Your task to perform on an android device: Go to notification settings Image 0: 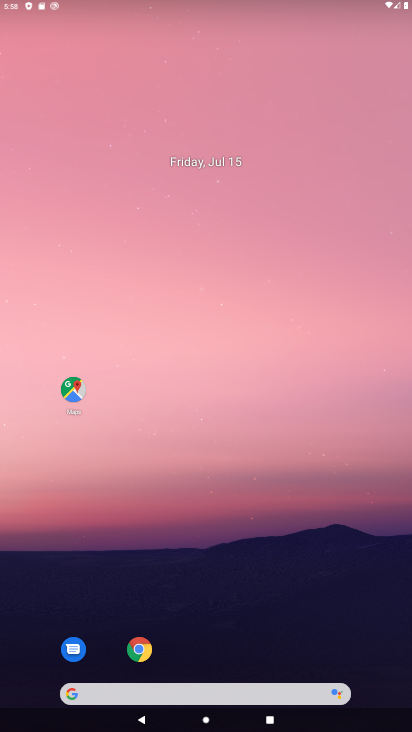
Step 0: press home button
Your task to perform on an android device: Go to notification settings Image 1: 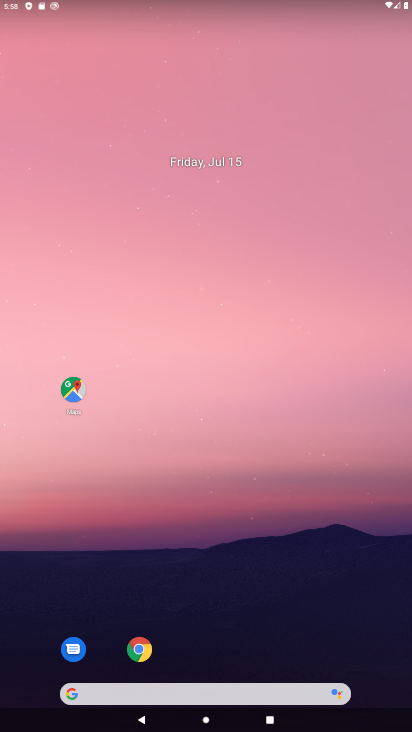
Step 1: drag from (259, 589) to (272, 11)
Your task to perform on an android device: Go to notification settings Image 2: 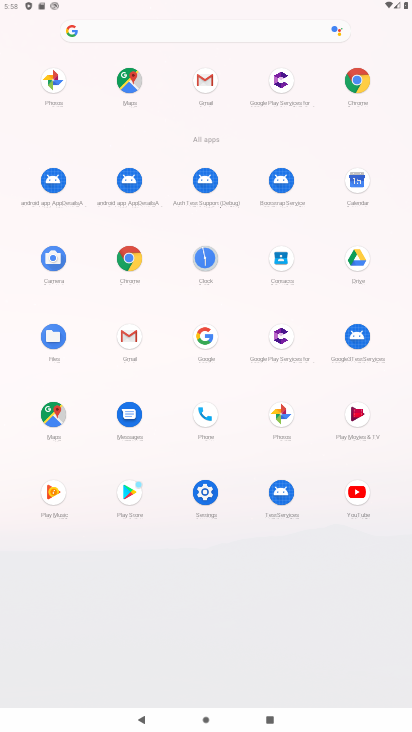
Step 2: click (207, 486)
Your task to perform on an android device: Go to notification settings Image 3: 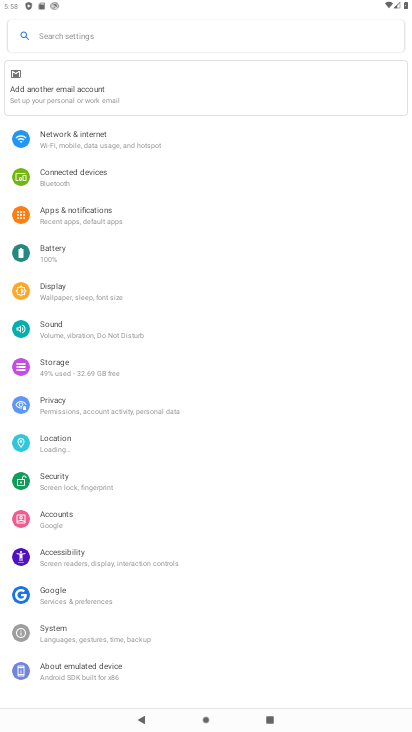
Step 3: click (63, 225)
Your task to perform on an android device: Go to notification settings Image 4: 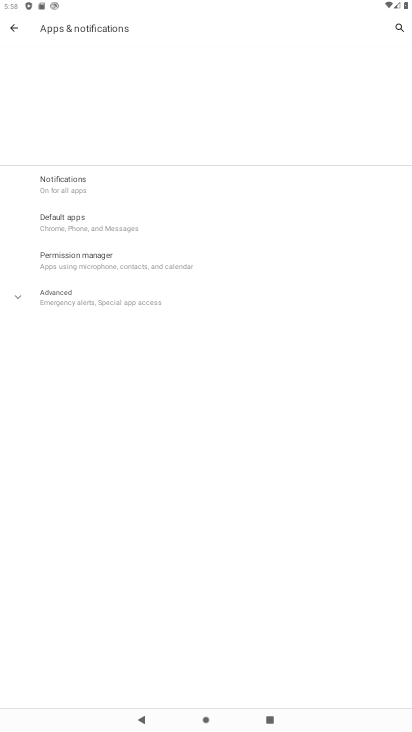
Step 4: click (66, 182)
Your task to perform on an android device: Go to notification settings Image 5: 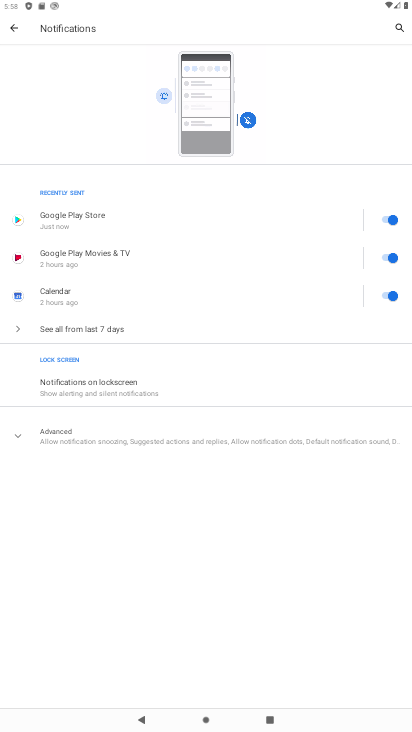
Step 5: task complete